Your task to perform on an android device: check battery use Image 0: 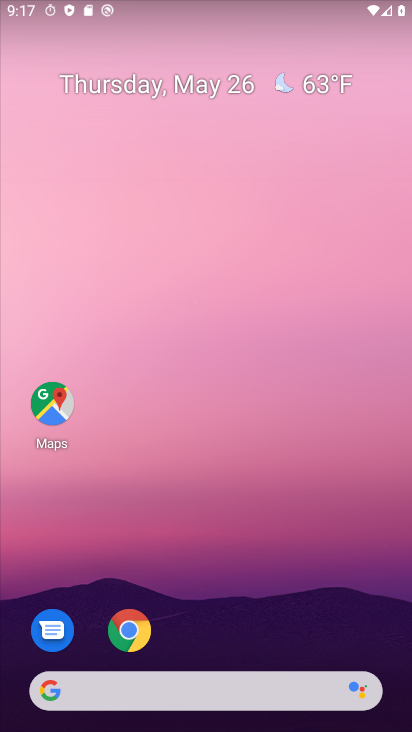
Step 0: drag from (219, 594) to (185, 100)
Your task to perform on an android device: check battery use Image 1: 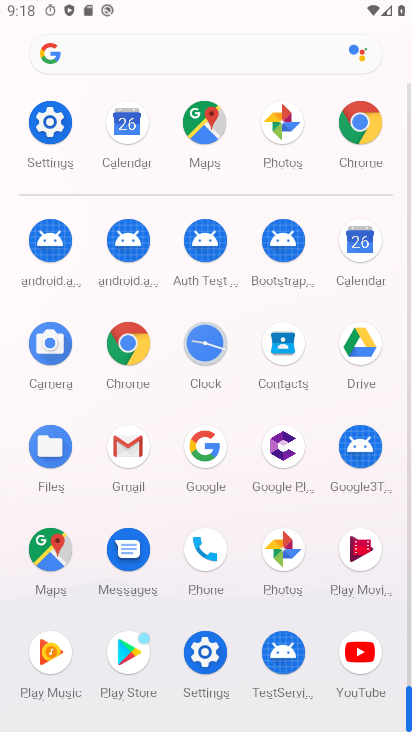
Step 1: click (203, 654)
Your task to perform on an android device: check battery use Image 2: 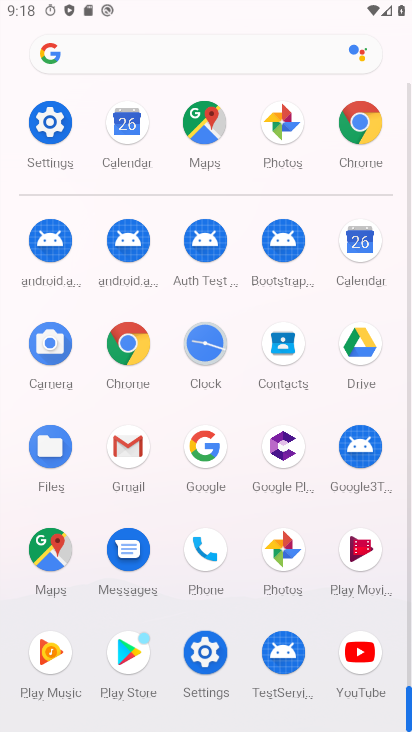
Step 2: click (204, 654)
Your task to perform on an android device: check battery use Image 3: 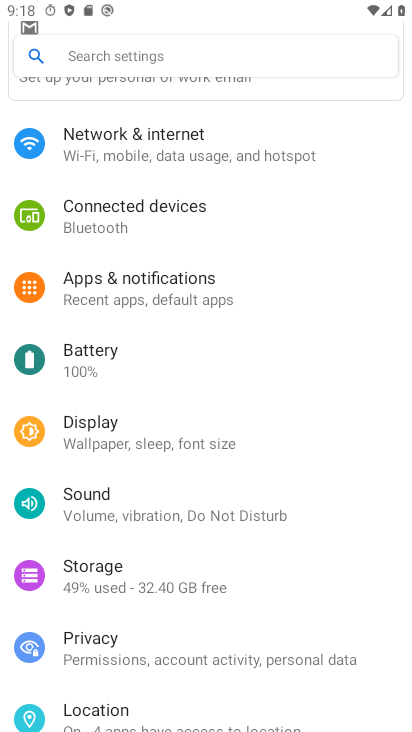
Step 3: click (84, 356)
Your task to perform on an android device: check battery use Image 4: 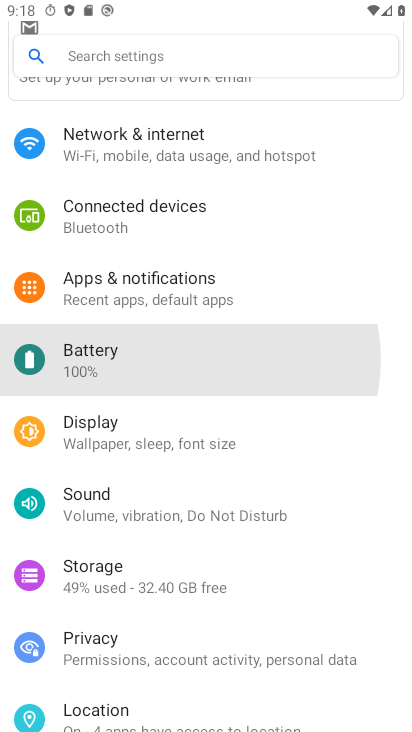
Step 4: click (83, 360)
Your task to perform on an android device: check battery use Image 5: 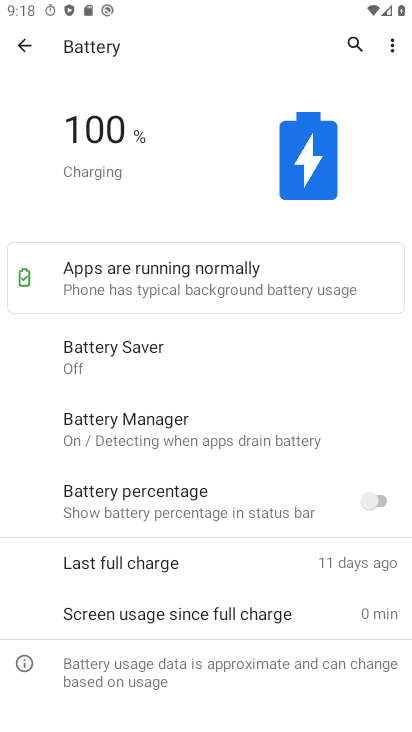
Step 5: task complete